Your task to perform on an android device: Go to Google Image 0: 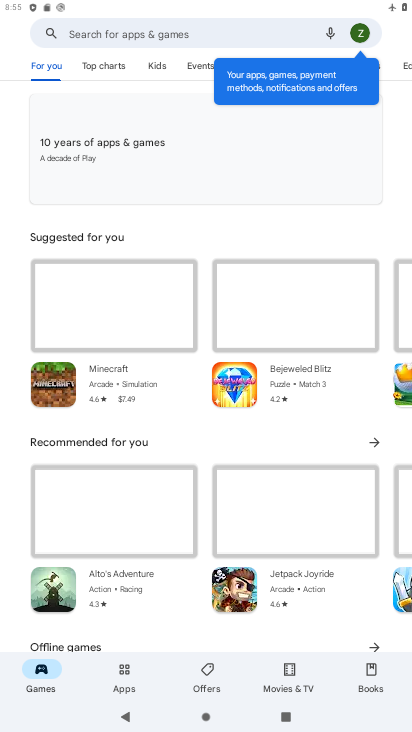
Step 0: press home button
Your task to perform on an android device: Go to Google Image 1: 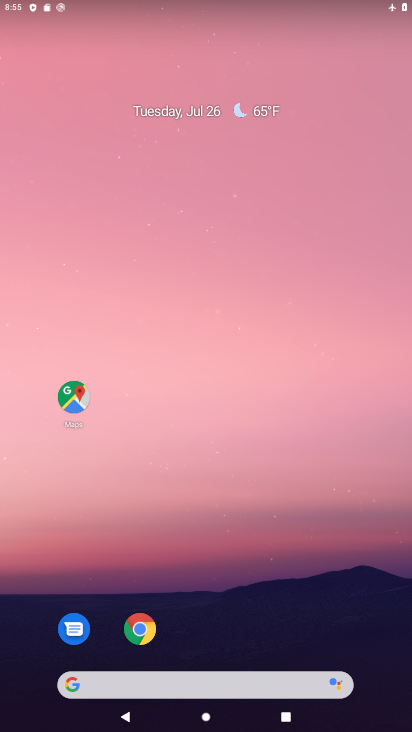
Step 1: drag from (310, 617) to (250, 99)
Your task to perform on an android device: Go to Google Image 2: 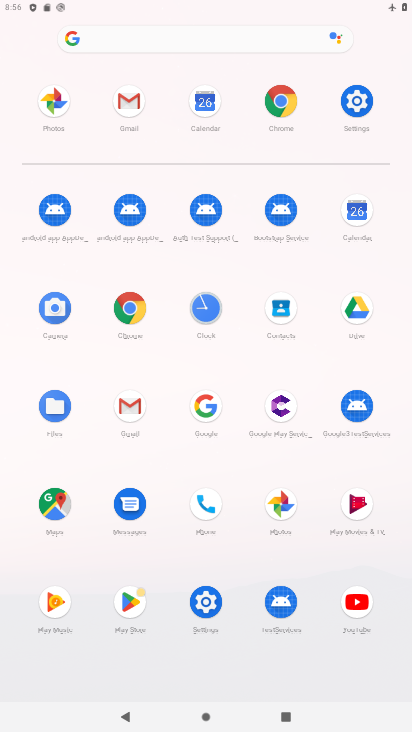
Step 2: click (216, 400)
Your task to perform on an android device: Go to Google Image 3: 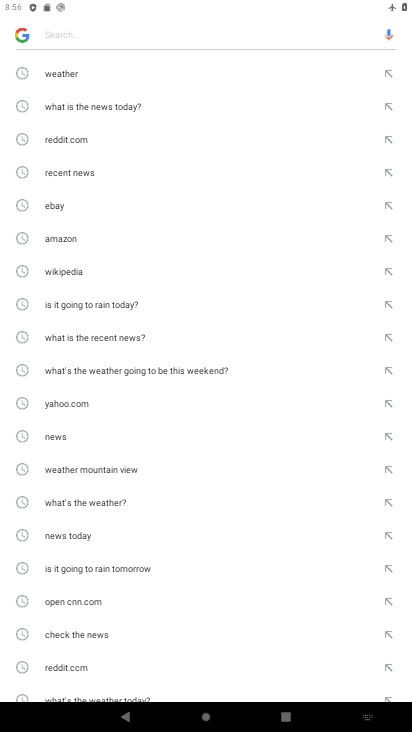
Step 3: task complete